Your task to perform on an android device: Open Google Image 0: 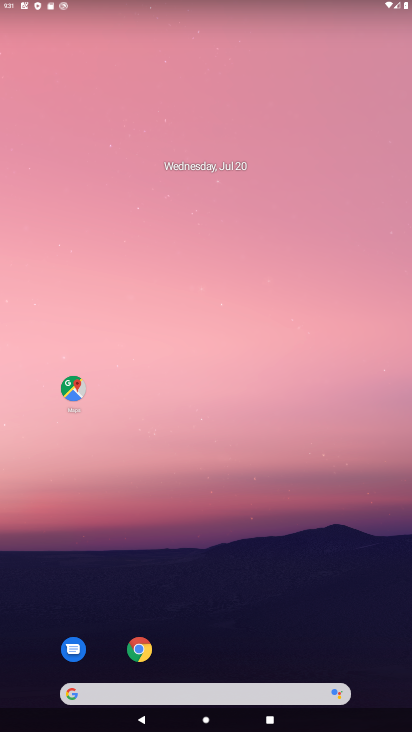
Step 0: click (174, 678)
Your task to perform on an android device: Open Google Image 1: 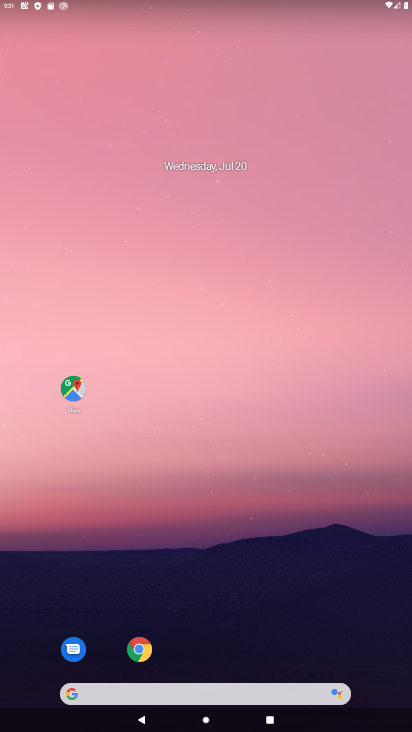
Step 1: click (164, 687)
Your task to perform on an android device: Open Google Image 2: 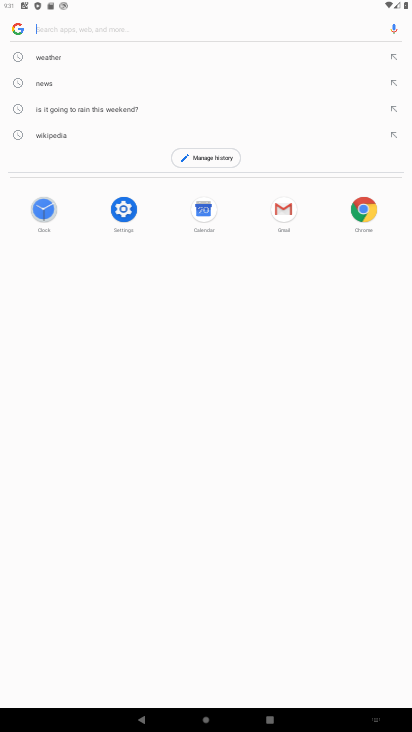
Step 2: type "google.com"
Your task to perform on an android device: Open Google Image 3: 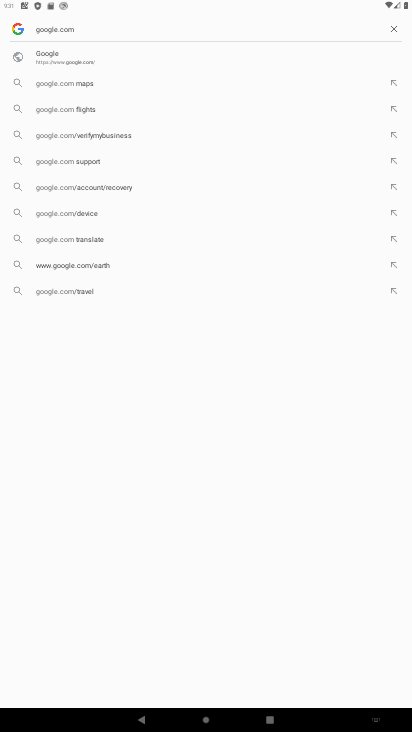
Step 3: click (173, 70)
Your task to perform on an android device: Open Google Image 4: 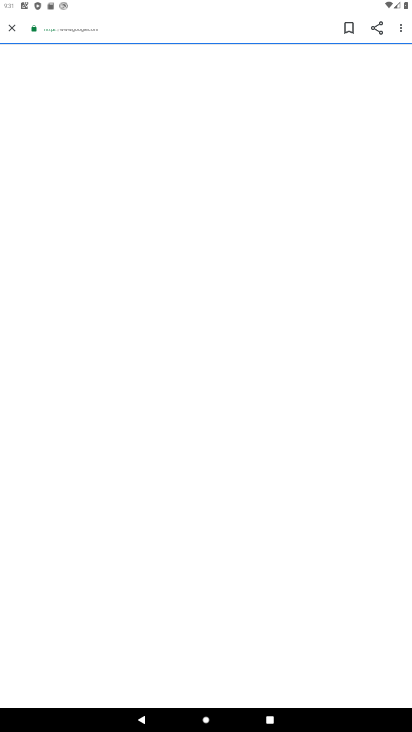
Step 4: task complete